Your task to perform on an android device: Search for "usb-c to usb-a" on newegg.com, select the first entry, add it to the cart, then select checkout. Image 0: 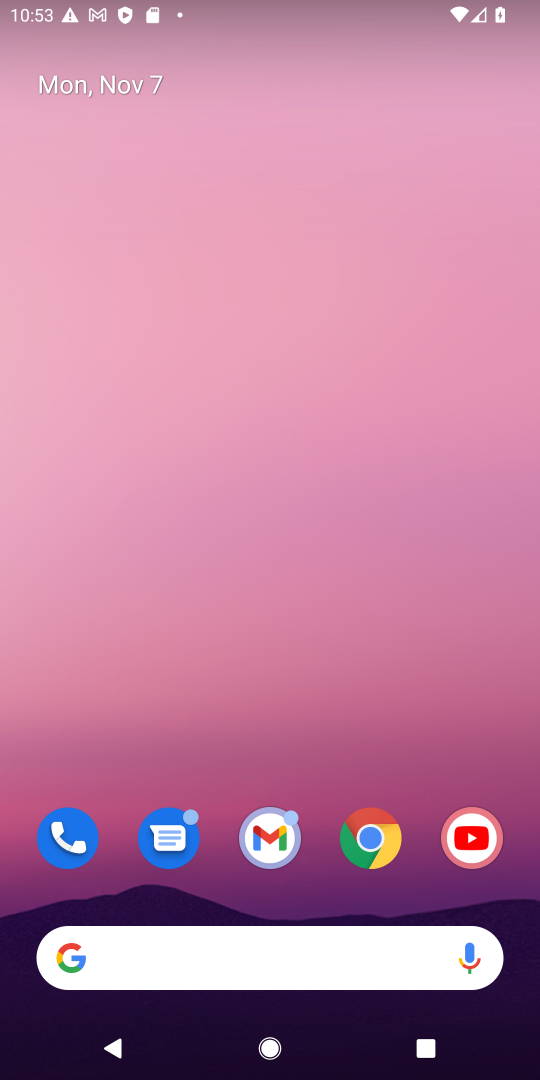
Step 0: click (380, 845)
Your task to perform on an android device: Search for "usb-c to usb-a" on newegg.com, select the first entry, add it to the cart, then select checkout. Image 1: 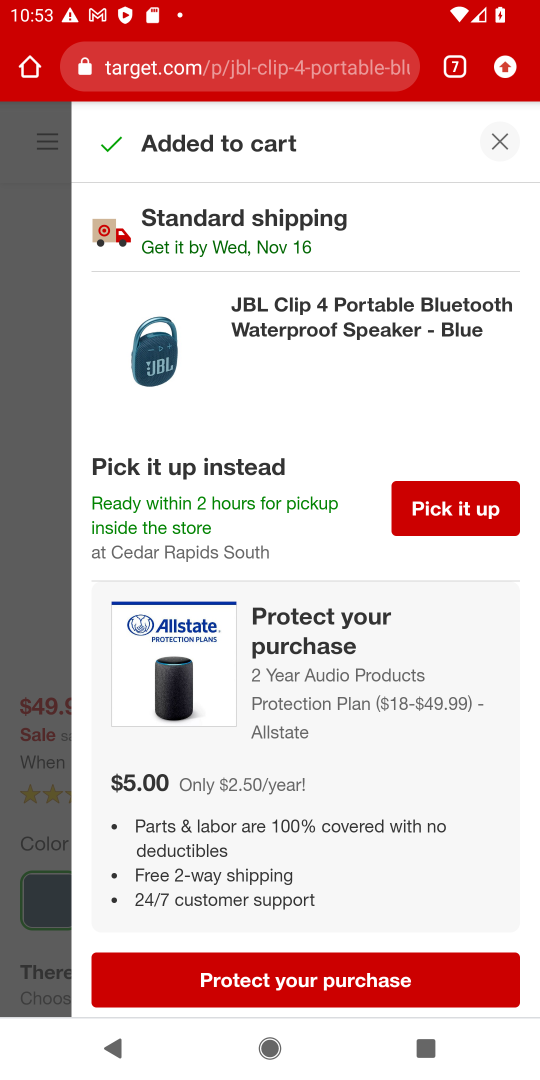
Step 1: click (450, 70)
Your task to perform on an android device: Search for "usb-c to usb-a" on newegg.com, select the first entry, add it to the cart, then select checkout. Image 2: 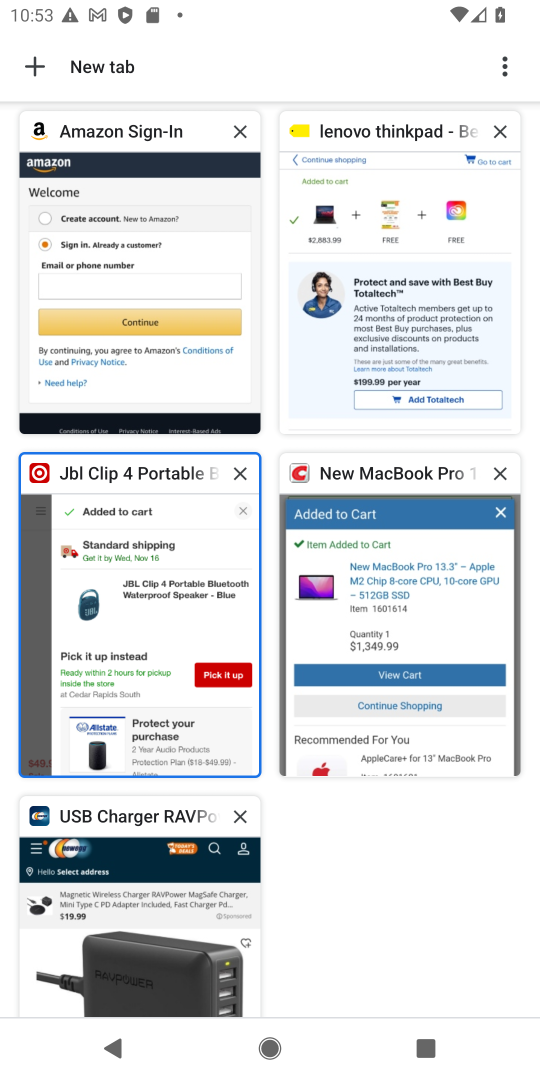
Step 2: click (122, 933)
Your task to perform on an android device: Search for "usb-c to usb-a" on newegg.com, select the first entry, add it to the cart, then select checkout. Image 3: 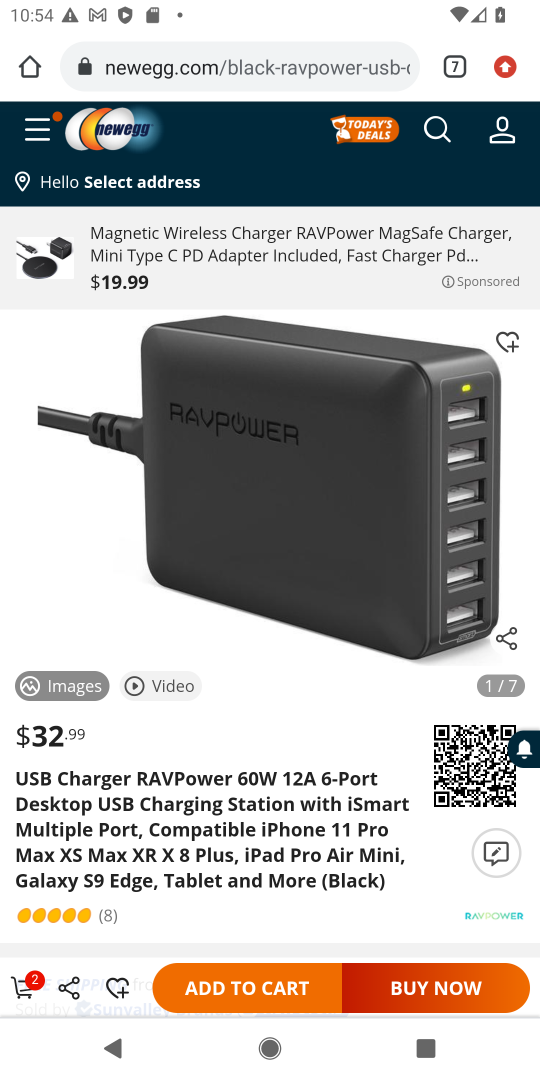
Step 3: click (437, 128)
Your task to perform on an android device: Search for "usb-c to usb-a" on newegg.com, select the first entry, add it to the cart, then select checkout. Image 4: 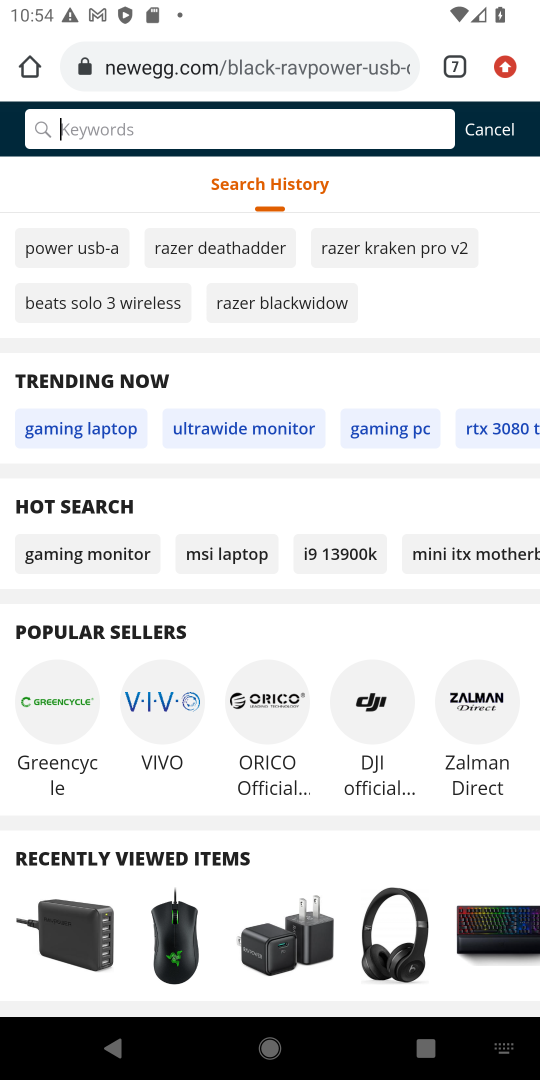
Step 4: type "usb-c to usb-a"
Your task to perform on an android device: Search for "usb-c to usb-a" on newegg.com, select the first entry, add it to the cart, then select checkout. Image 5: 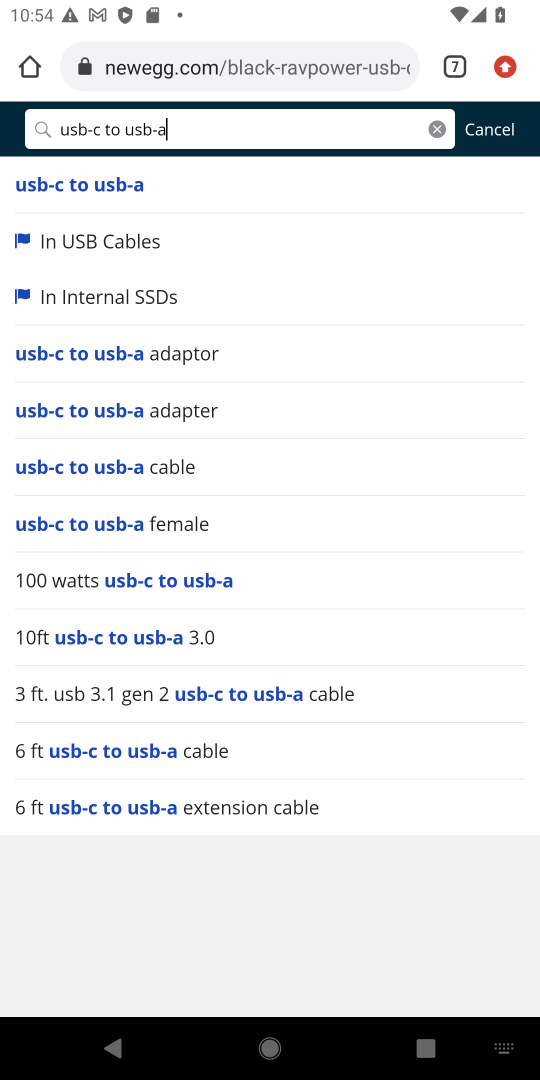
Step 5: click (131, 185)
Your task to perform on an android device: Search for "usb-c to usb-a" on newegg.com, select the first entry, add it to the cart, then select checkout. Image 6: 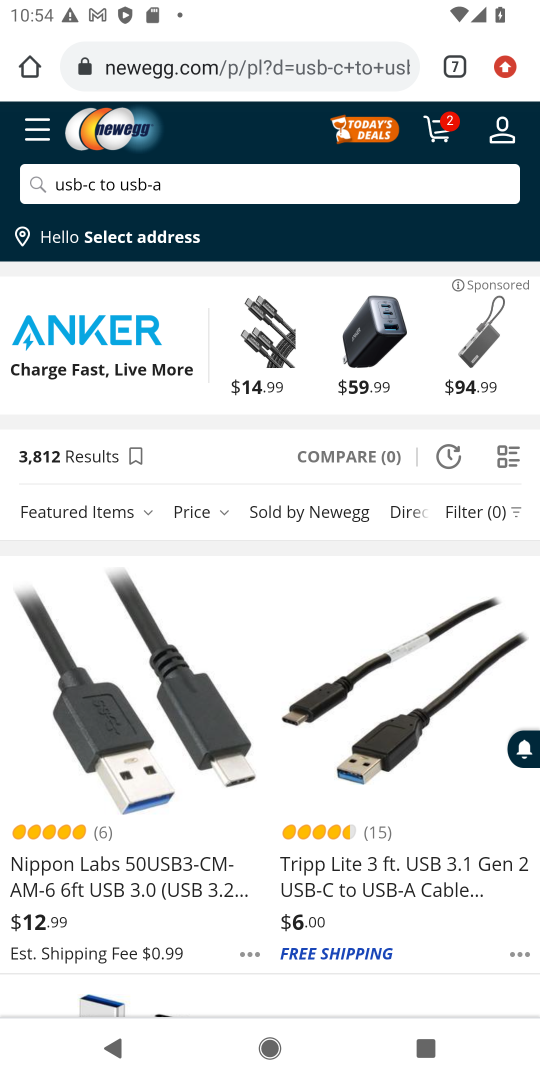
Step 6: click (142, 873)
Your task to perform on an android device: Search for "usb-c to usb-a" on newegg.com, select the first entry, add it to the cart, then select checkout. Image 7: 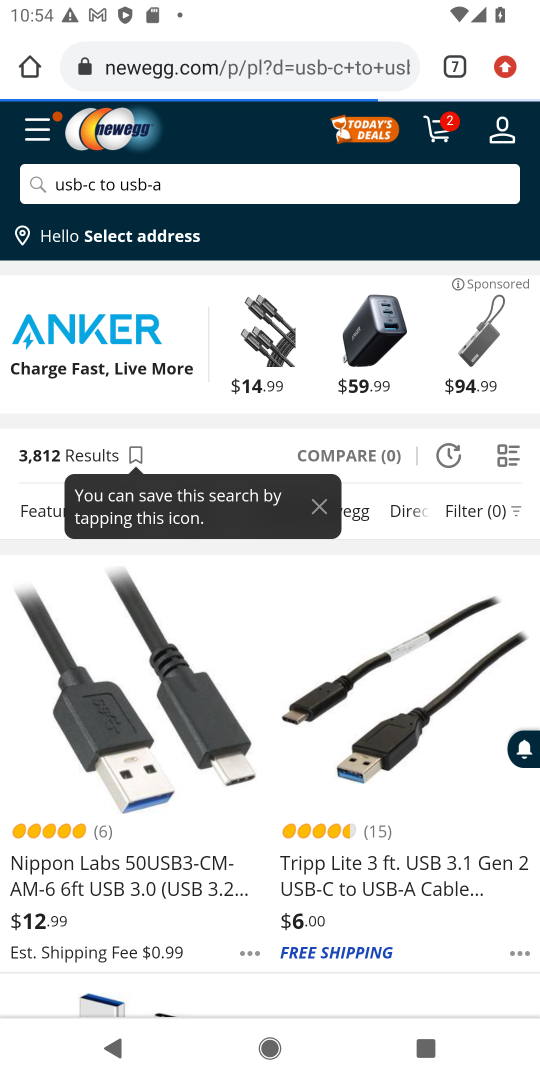
Step 7: click (152, 874)
Your task to perform on an android device: Search for "usb-c to usb-a" on newegg.com, select the first entry, add it to the cart, then select checkout. Image 8: 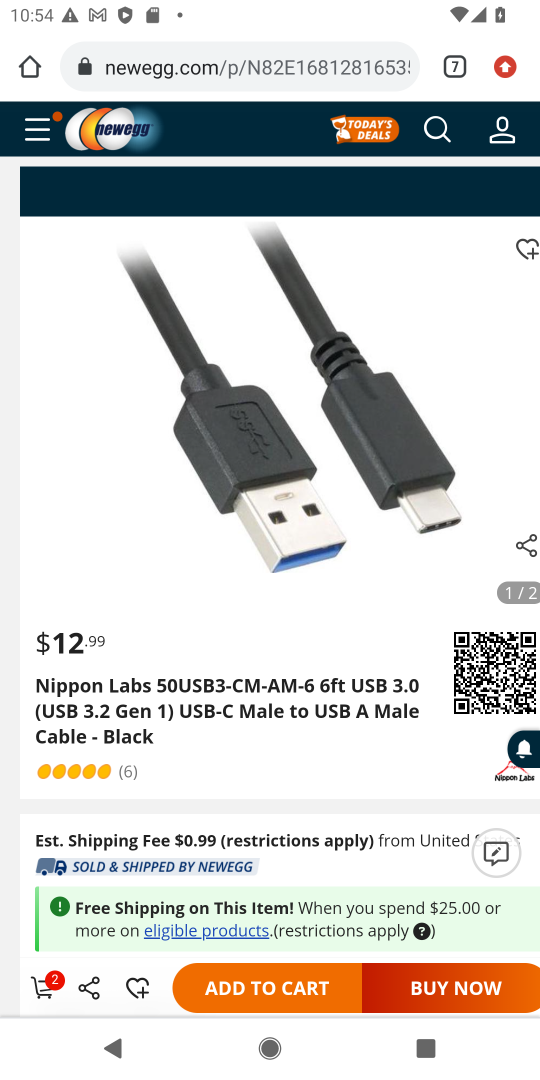
Step 8: click (221, 985)
Your task to perform on an android device: Search for "usb-c to usb-a" on newegg.com, select the first entry, add it to the cart, then select checkout. Image 9: 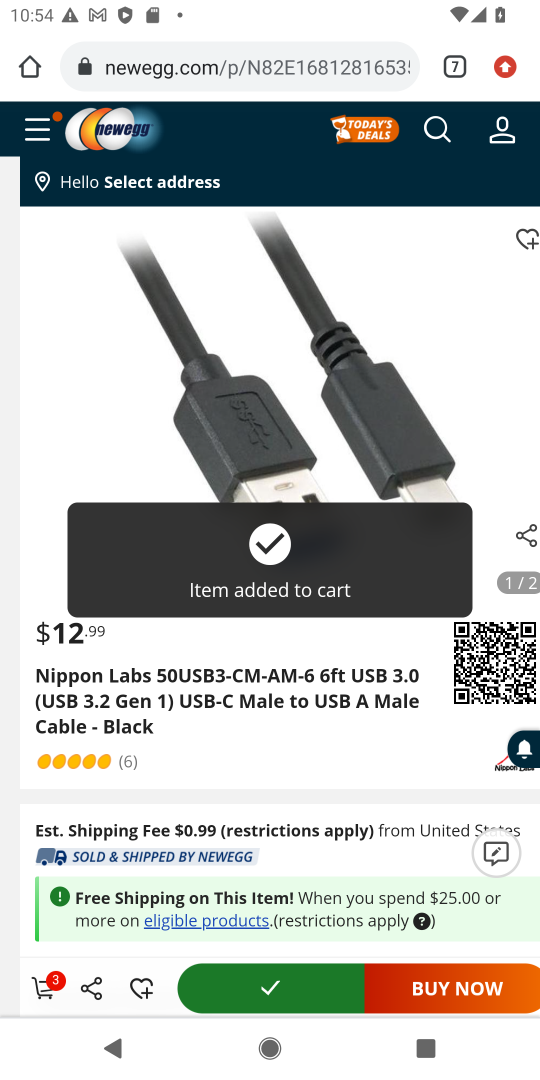
Step 9: click (45, 986)
Your task to perform on an android device: Search for "usb-c to usb-a" on newegg.com, select the first entry, add it to the cart, then select checkout. Image 10: 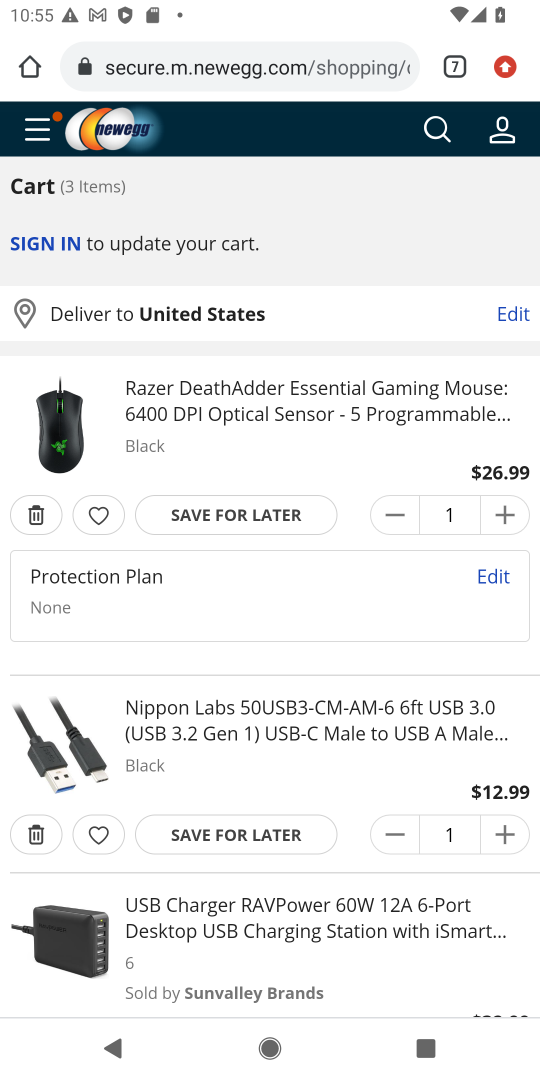
Step 10: click (313, 933)
Your task to perform on an android device: Search for "usb-c to usb-a" on newegg.com, select the first entry, add it to the cart, then select checkout. Image 11: 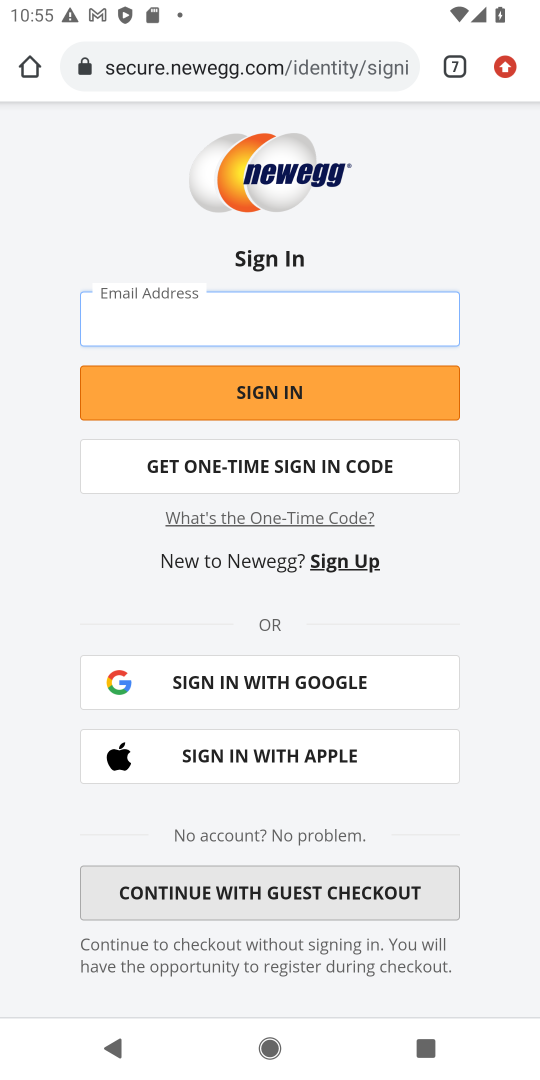
Step 11: task complete